Your task to perform on an android device: change keyboard looks Image 0: 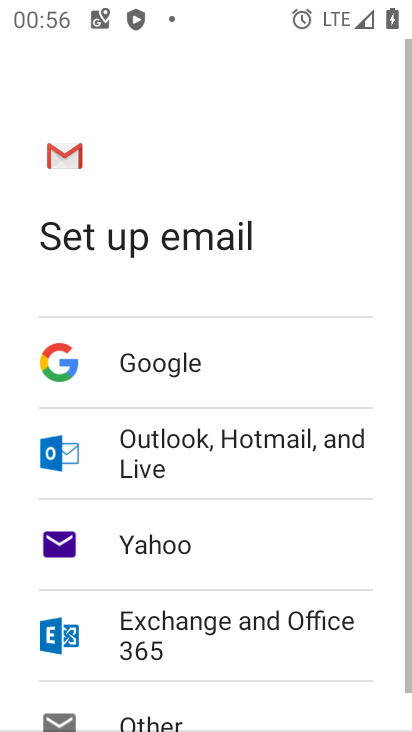
Step 0: press home button
Your task to perform on an android device: change keyboard looks Image 1: 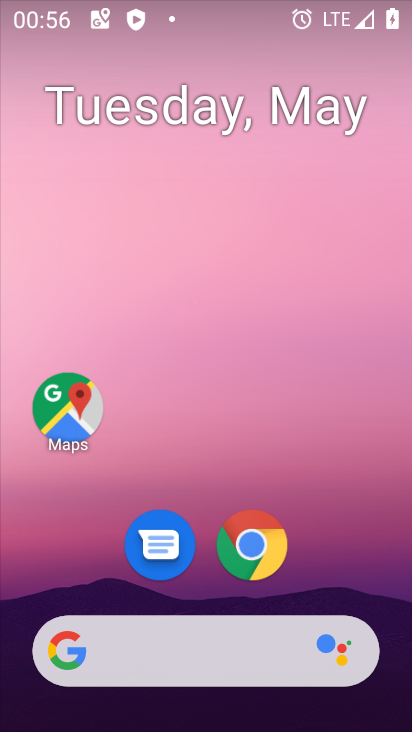
Step 1: drag from (357, 556) to (297, 0)
Your task to perform on an android device: change keyboard looks Image 2: 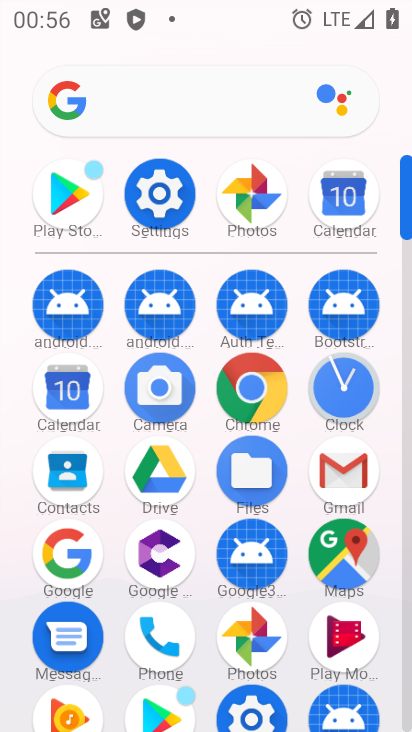
Step 2: click (169, 216)
Your task to perform on an android device: change keyboard looks Image 3: 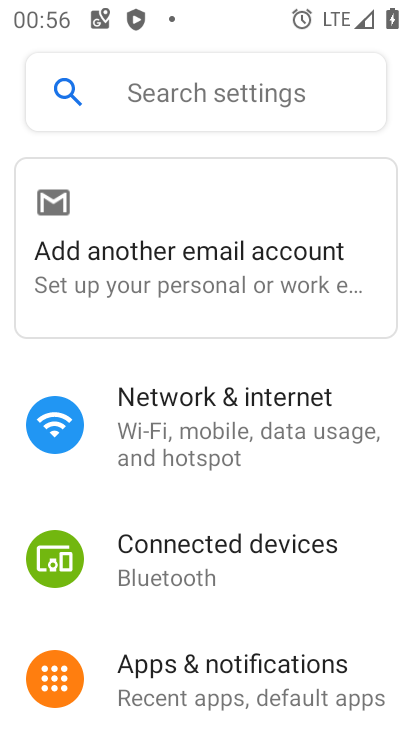
Step 3: drag from (206, 637) to (147, 404)
Your task to perform on an android device: change keyboard looks Image 4: 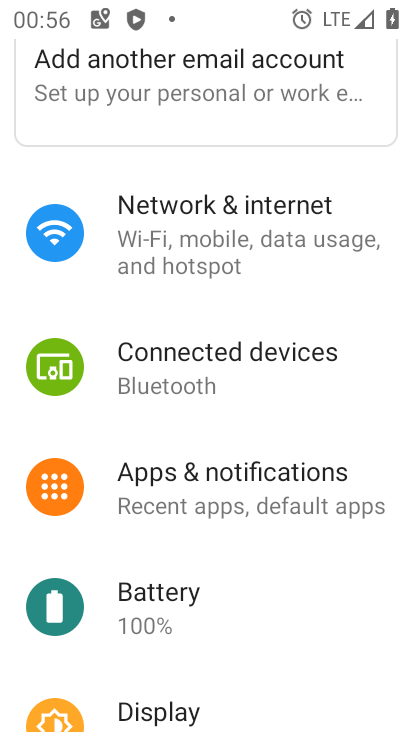
Step 4: drag from (226, 583) to (193, 391)
Your task to perform on an android device: change keyboard looks Image 5: 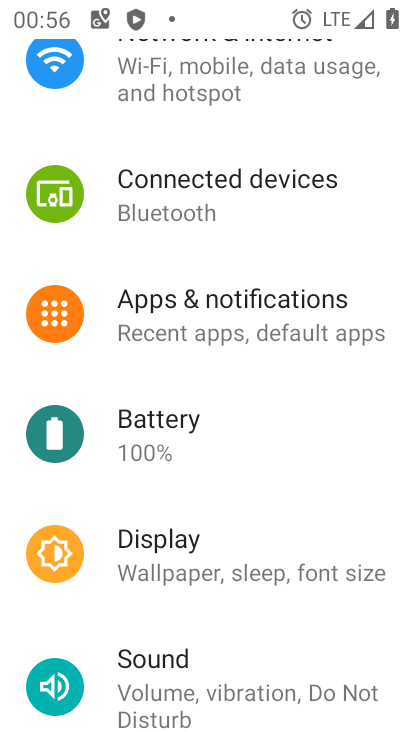
Step 5: drag from (212, 690) to (315, 323)
Your task to perform on an android device: change keyboard looks Image 6: 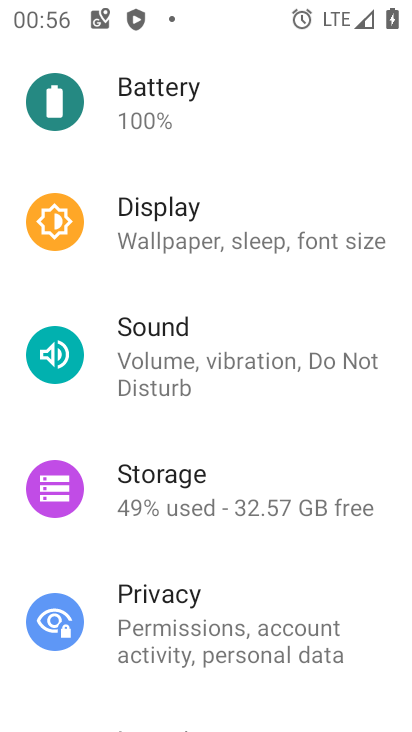
Step 6: drag from (302, 698) to (292, 430)
Your task to perform on an android device: change keyboard looks Image 7: 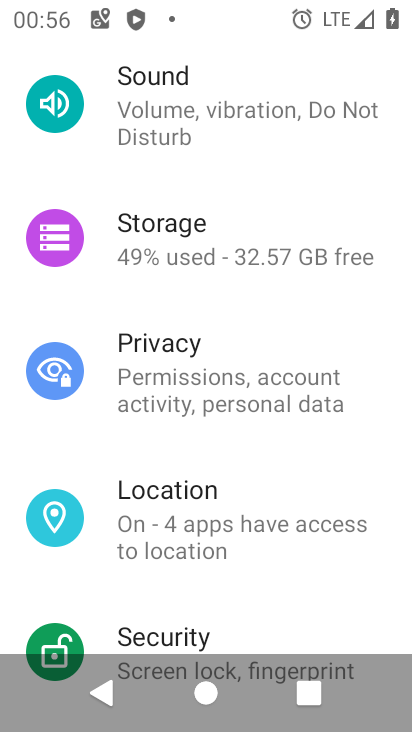
Step 7: drag from (245, 619) to (294, 402)
Your task to perform on an android device: change keyboard looks Image 8: 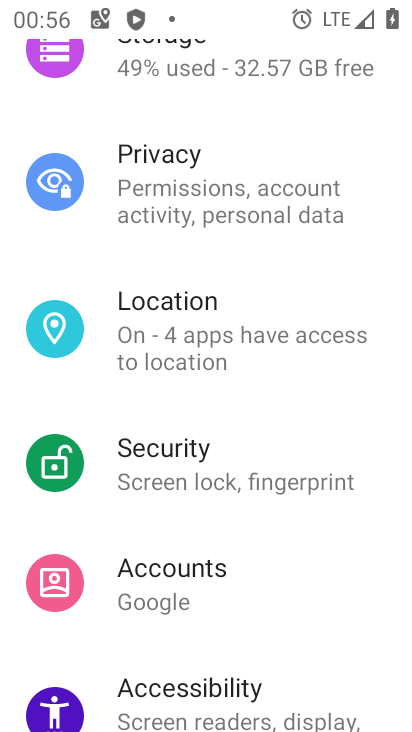
Step 8: drag from (280, 643) to (264, 366)
Your task to perform on an android device: change keyboard looks Image 9: 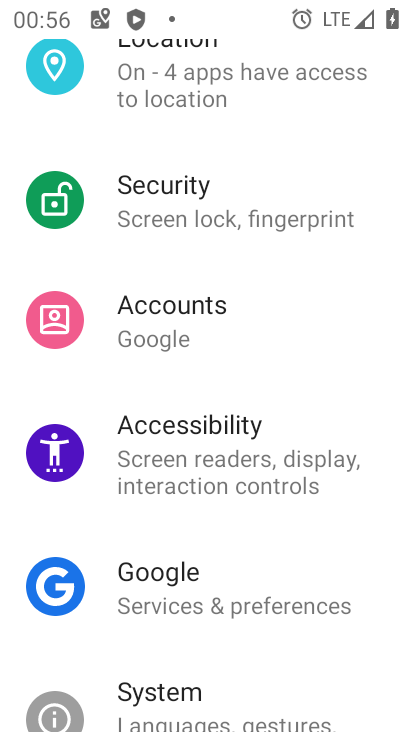
Step 9: drag from (203, 624) to (193, 387)
Your task to perform on an android device: change keyboard looks Image 10: 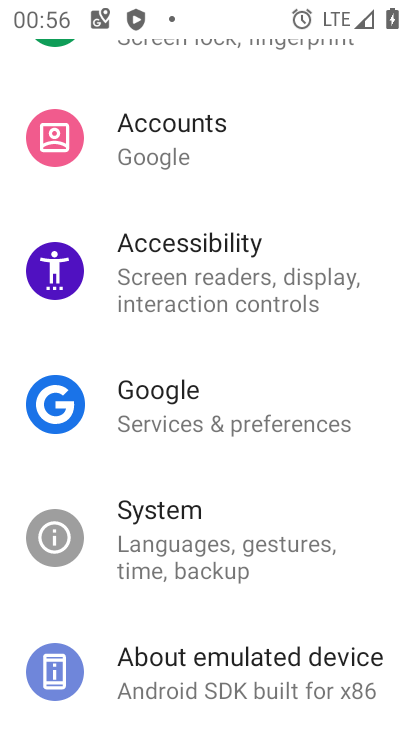
Step 10: click (211, 531)
Your task to perform on an android device: change keyboard looks Image 11: 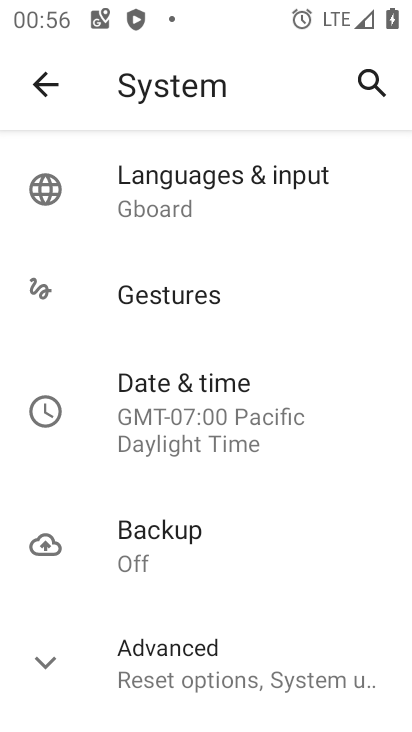
Step 11: click (184, 192)
Your task to perform on an android device: change keyboard looks Image 12: 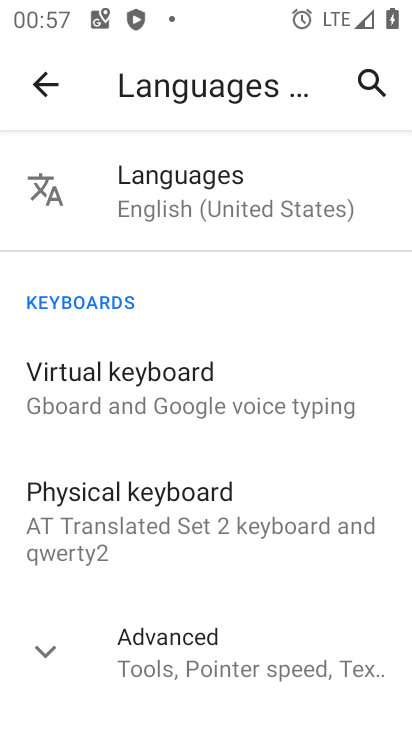
Step 12: click (170, 371)
Your task to perform on an android device: change keyboard looks Image 13: 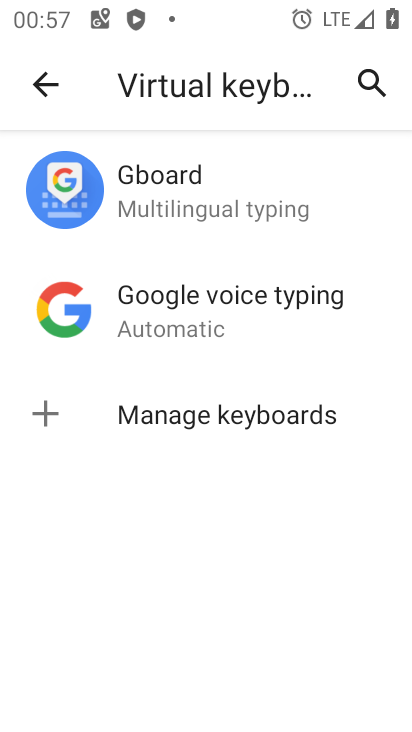
Step 13: click (217, 199)
Your task to perform on an android device: change keyboard looks Image 14: 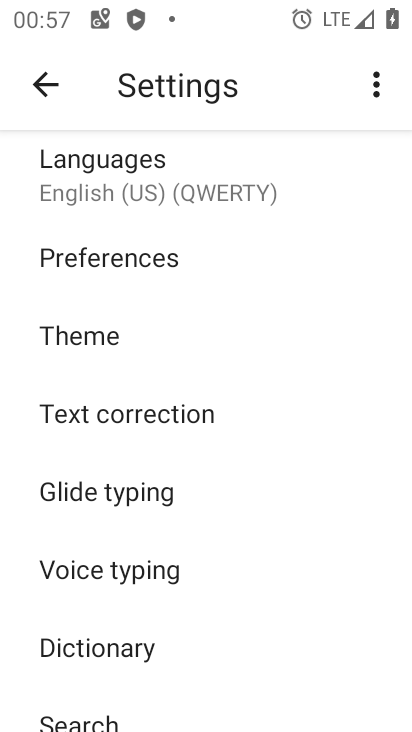
Step 14: click (124, 321)
Your task to perform on an android device: change keyboard looks Image 15: 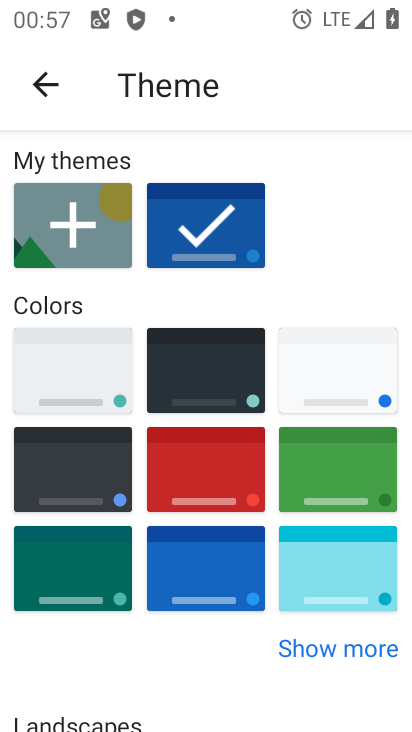
Step 15: click (317, 580)
Your task to perform on an android device: change keyboard looks Image 16: 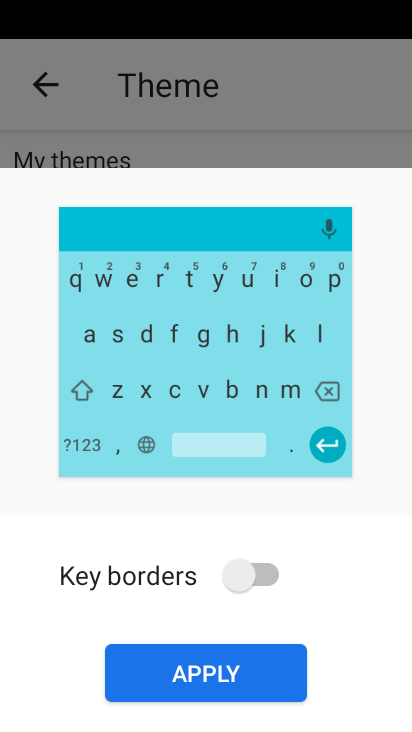
Step 16: click (239, 660)
Your task to perform on an android device: change keyboard looks Image 17: 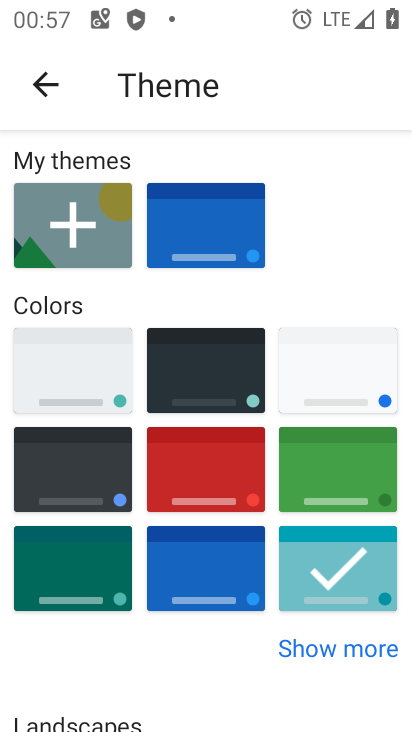
Step 17: task complete